Your task to perform on an android device: Go to settings Image 0: 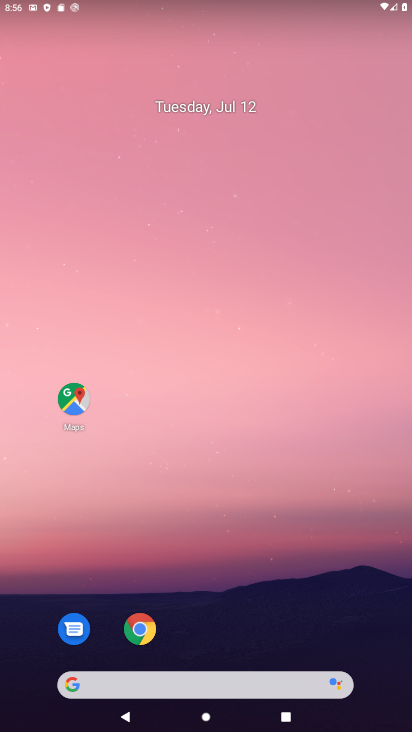
Step 0: drag from (236, 478) to (216, 338)
Your task to perform on an android device: Go to settings Image 1: 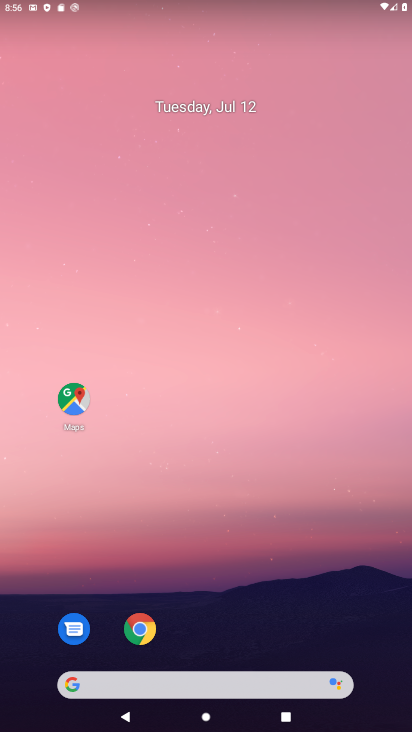
Step 1: drag from (227, 568) to (137, 93)
Your task to perform on an android device: Go to settings Image 2: 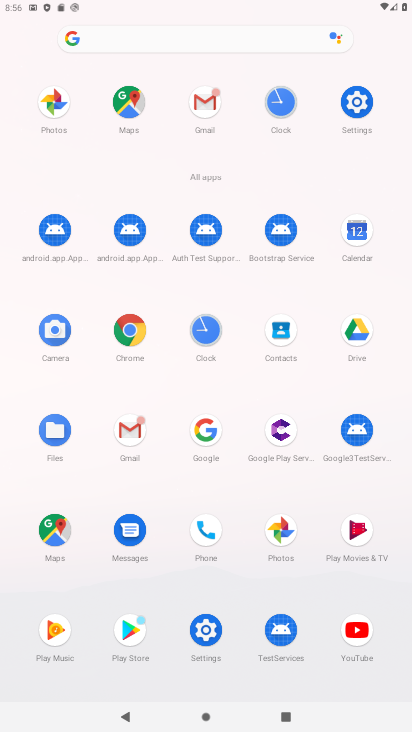
Step 2: click (123, 631)
Your task to perform on an android device: Go to settings Image 3: 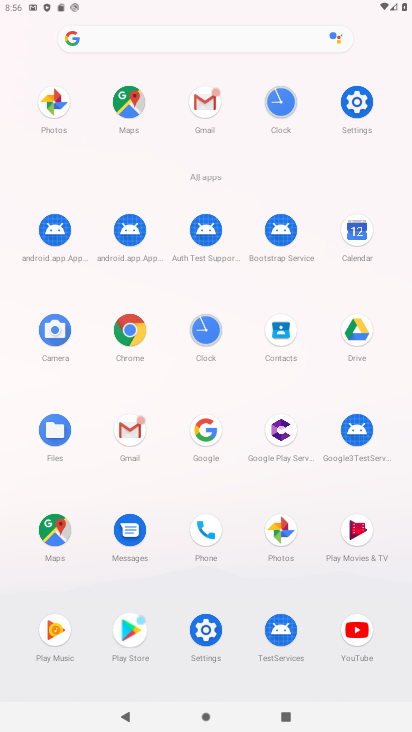
Step 3: click (123, 609)
Your task to perform on an android device: Go to settings Image 4: 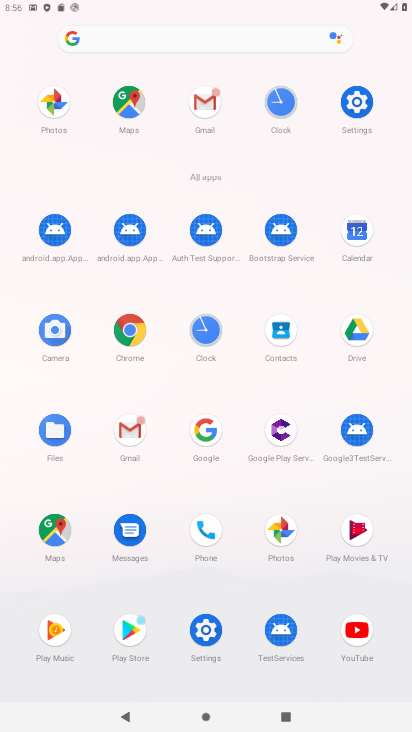
Step 4: click (210, 627)
Your task to perform on an android device: Go to settings Image 5: 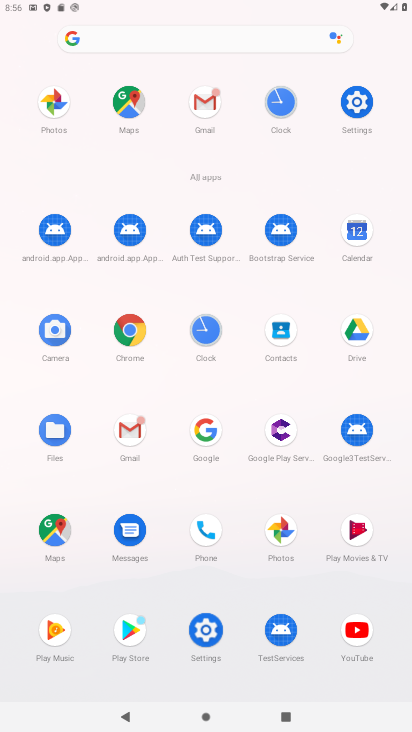
Step 5: click (210, 630)
Your task to perform on an android device: Go to settings Image 6: 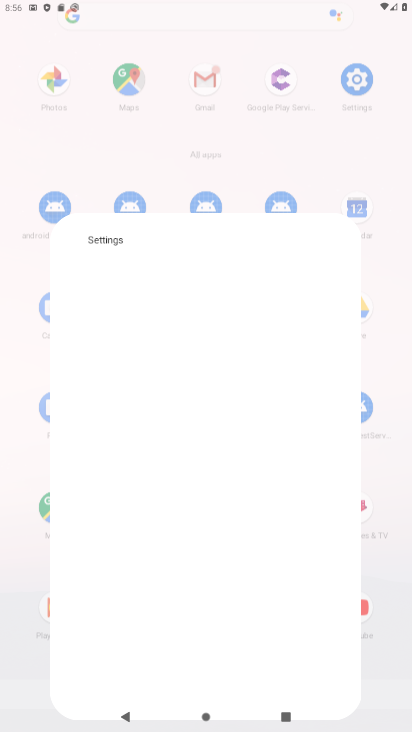
Step 6: click (210, 633)
Your task to perform on an android device: Go to settings Image 7: 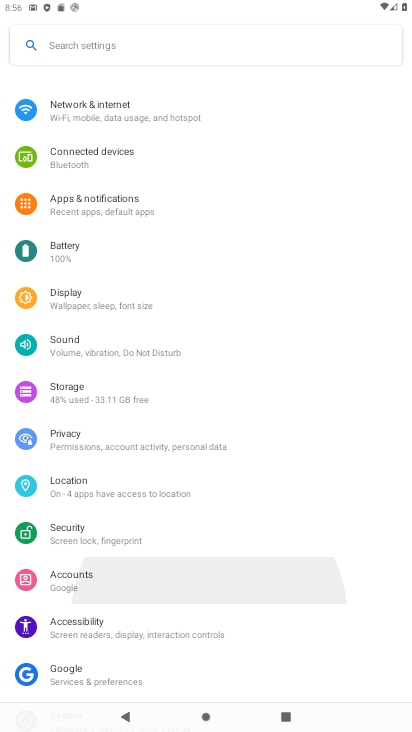
Step 7: click (211, 634)
Your task to perform on an android device: Go to settings Image 8: 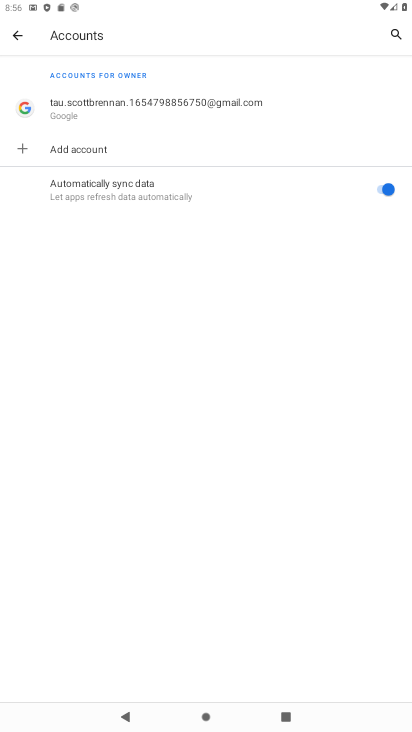
Step 8: click (13, 35)
Your task to perform on an android device: Go to settings Image 9: 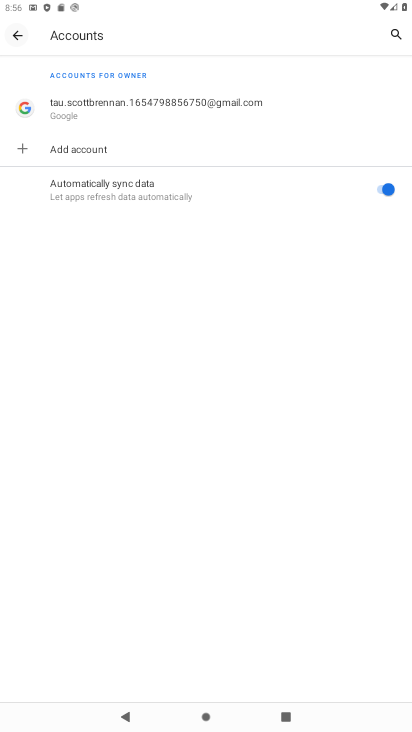
Step 9: click (17, 33)
Your task to perform on an android device: Go to settings Image 10: 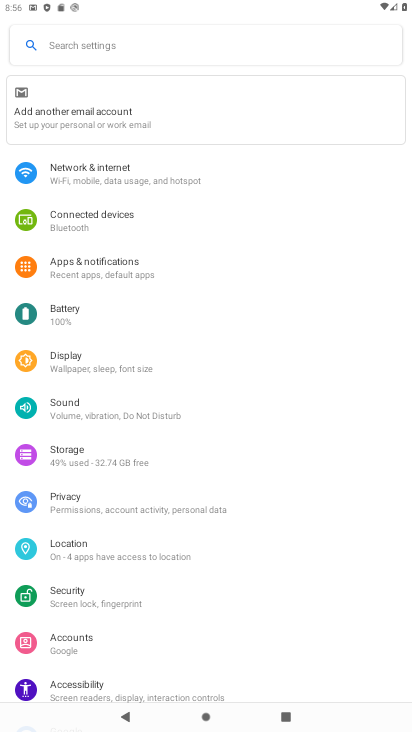
Step 10: task complete